Your task to perform on an android device: Go to settings Image 0: 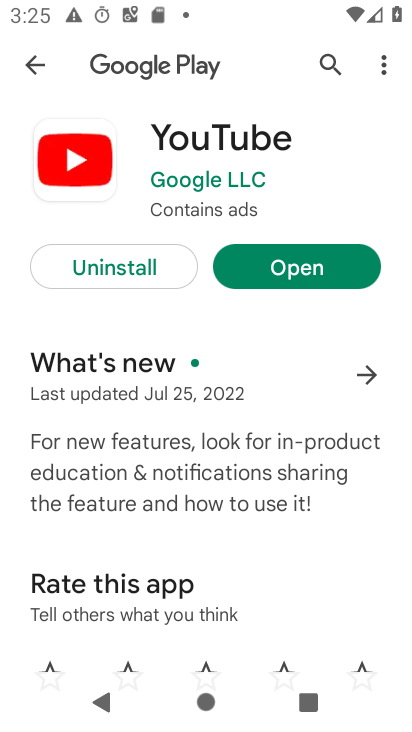
Step 0: press home button
Your task to perform on an android device: Go to settings Image 1: 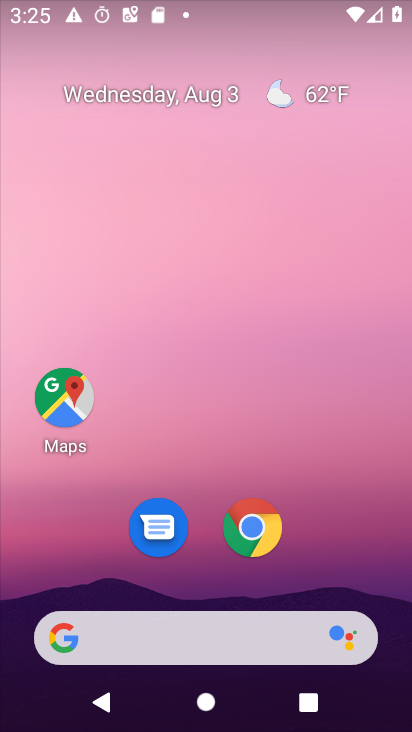
Step 1: drag from (356, 540) to (263, 154)
Your task to perform on an android device: Go to settings Image 2: 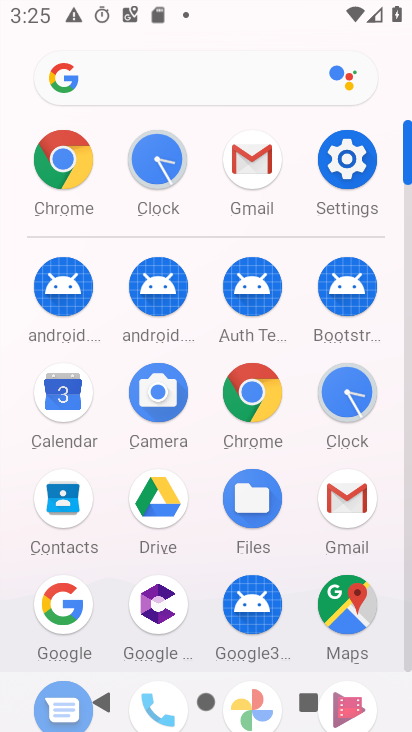
Step 2: click (336, 159)
Your task to perform on an android device: Go to settings Image 3: 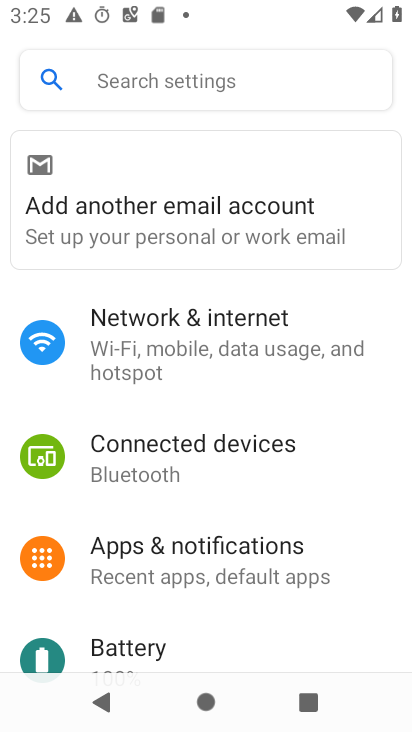
Step 3: task complete